Your task to perform on an android device: Go to Maps Image 0: 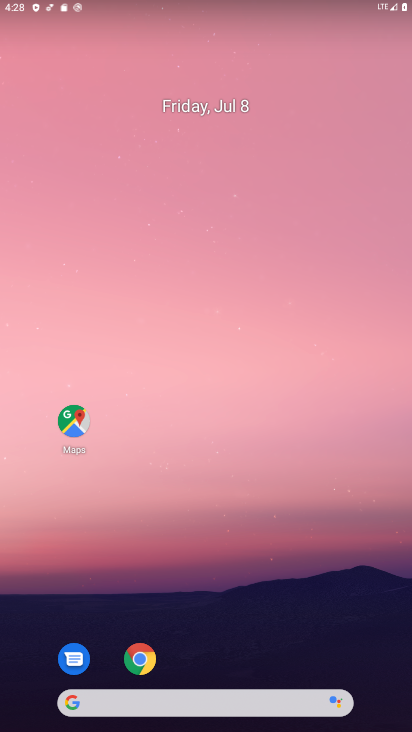
Step 0: press home button
Your task to perform on an android device: Go to Maps Image 1: 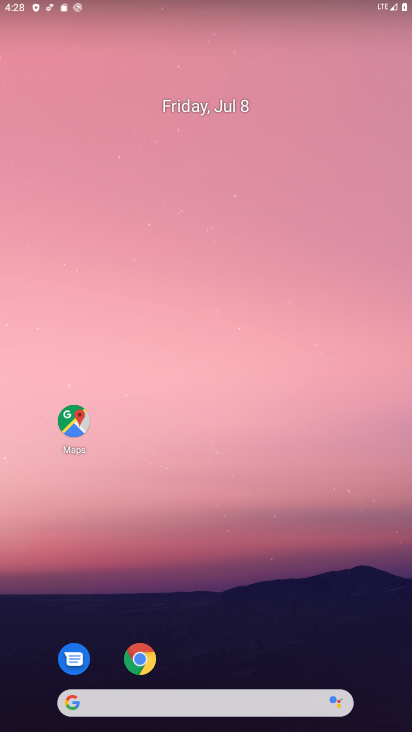
Step 1: click (77, 424)
Your task to perform on an android device: Go to Maps Image 2: 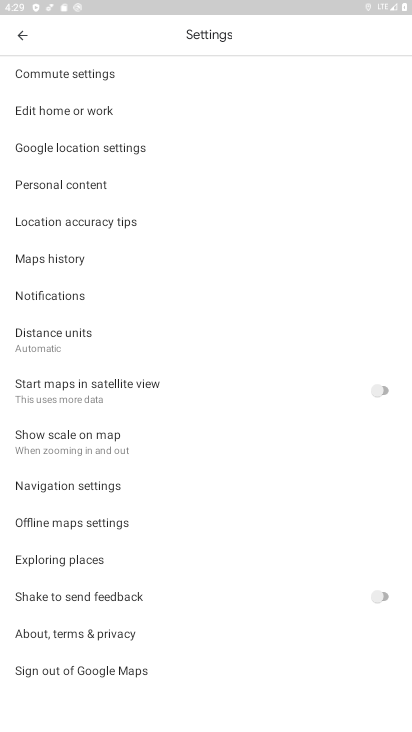
Step 2: click (23, 49)
Your task to perform on an android device: Go to Maps Image 3: 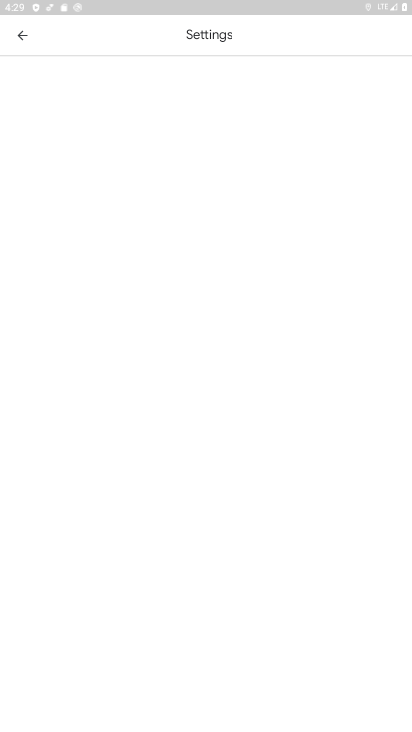
Step 3: click (23, 49)
Your task to perform on an android device: Go to Maps Image 4: 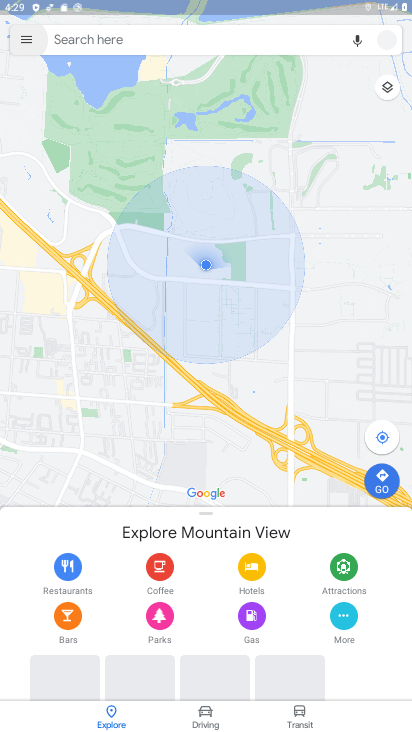
Step 4: task complete